Your task to perform on an android device: Open my contact list Image 0: 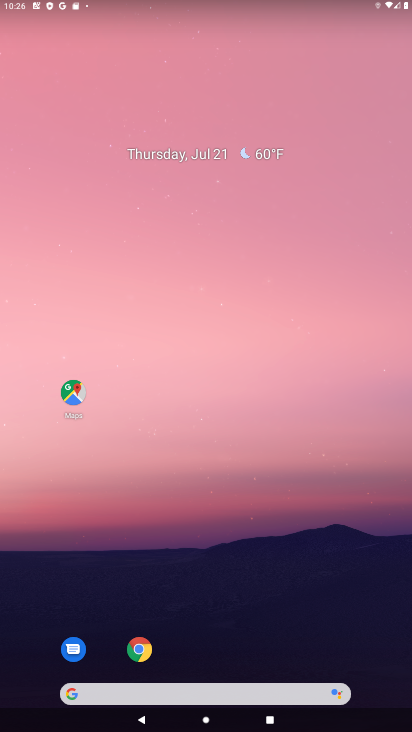
Step 0: drag from (207, 696) to (289, 291)
Your task to perform on an android device: Open my contact list Image 1: 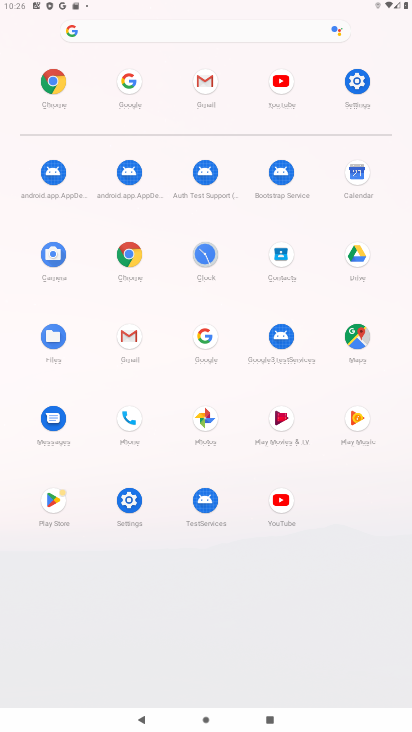
Step 1: click (282, 254)
Your task to perform on an android device: Open my contact list Image 2: 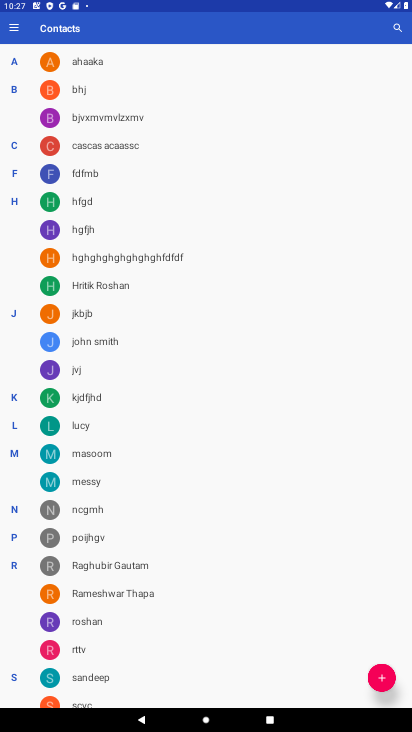
Step 2: task complete